Your task to perform on an android device: Open location settings Image 0: 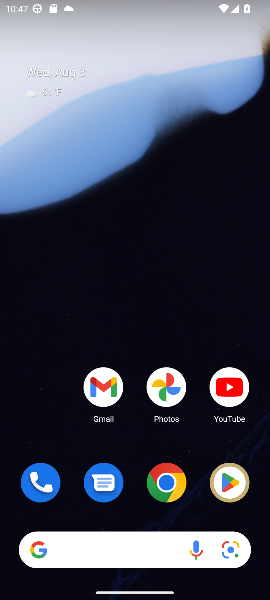
Step 0: drag from (140, 516) to (129, 113)
Your task to perform on an android device: Open location settings Image 1: 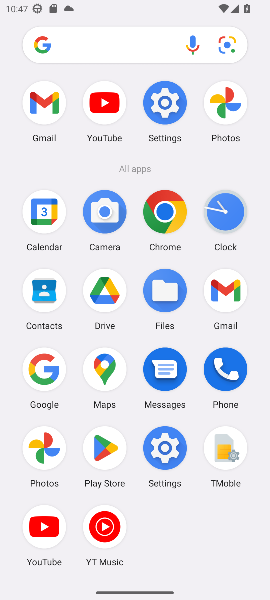
Step 1: click (156, 426)
Your task to perform on an android device: Open location settings Image 2: 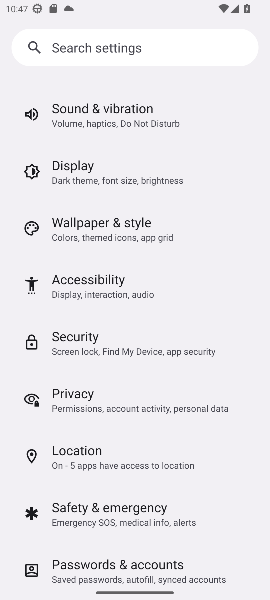
Step 2: click (90, 438)
Your task to perform on an android device: Open location settings Image 3: 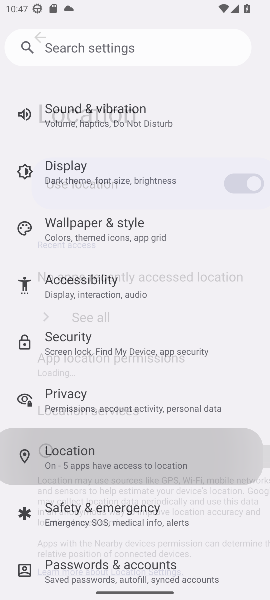
Step 3: task complete